Your task to perform on an android device: refresh tabs in the chrome app Image 0: 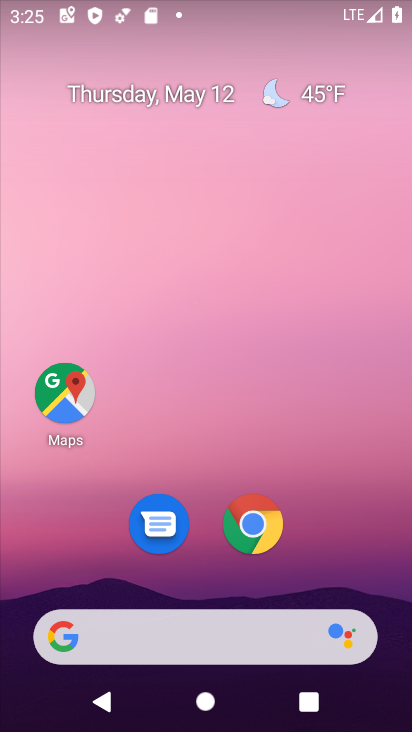
Step 0: drag from (189, 466) to (243, 549)
Your task to perform on an android device: refresh tabs in the chrome app Image 1: 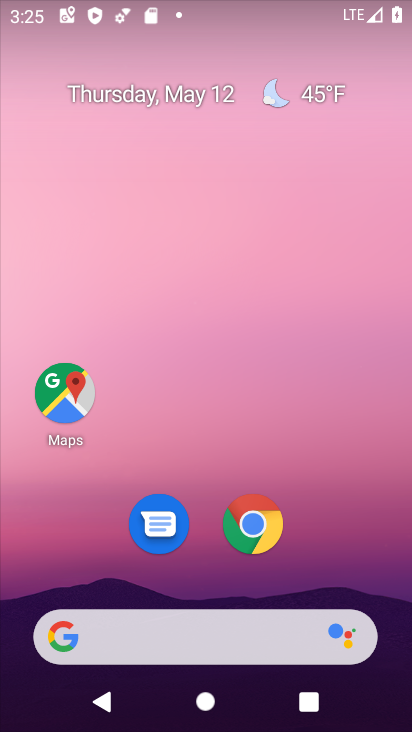
Step 1: drag from (194, 563) to (253, 19)
Your task to perform on an android device: refresh tabs in the chrome app Image 2: 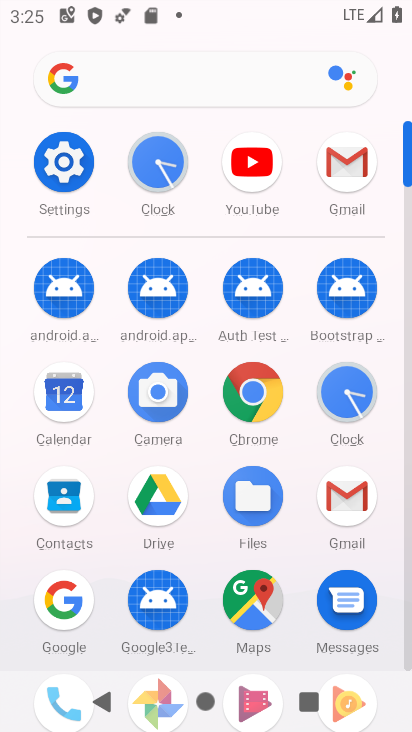
Step 2: click (243, 375)
Your task to perform on an android device: refresh tabs in the chrome app Image 3: 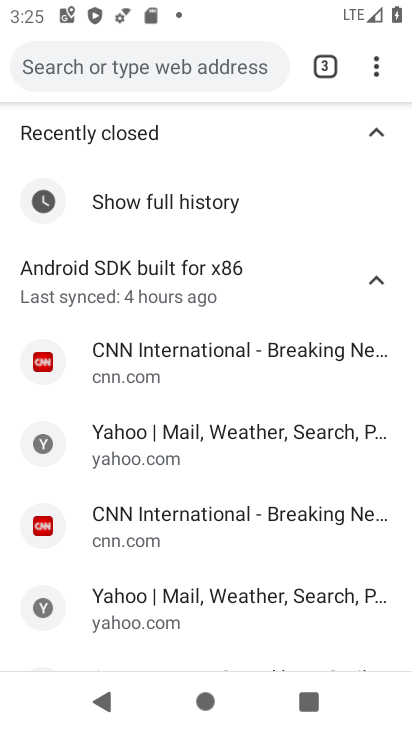
Step 3: click (376, 57)
Your task to perform on an android device: refresh tabs in the chrome app Image 4: 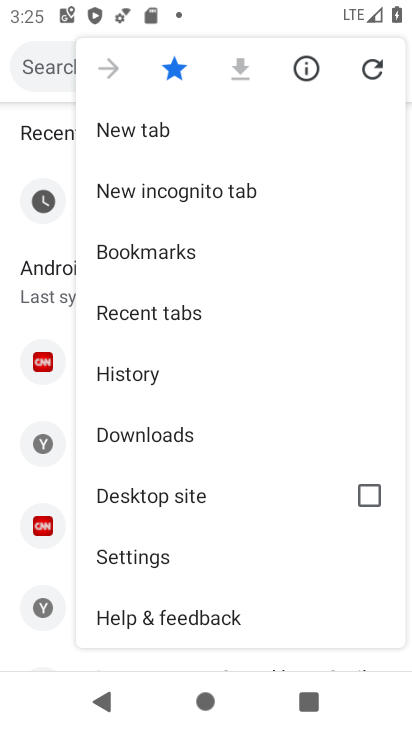
Step 4: click (364, 71)
Your task to perform on an android device: refresh tabs in the chrome app Image 5: 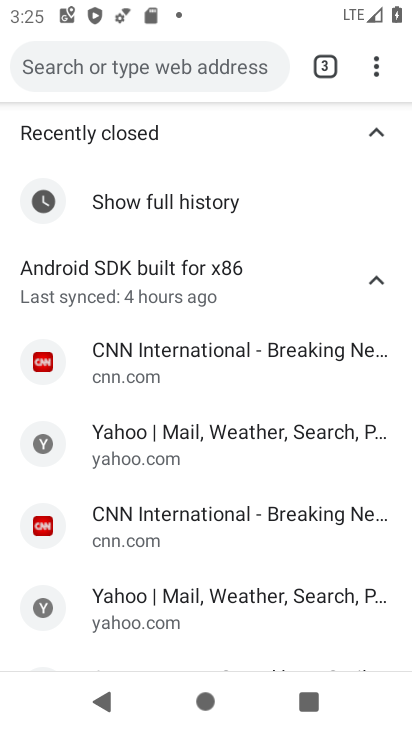
Step 5: task complete